Your task to perform on an android device: Open calendar and show me the third week of next month Image 0: 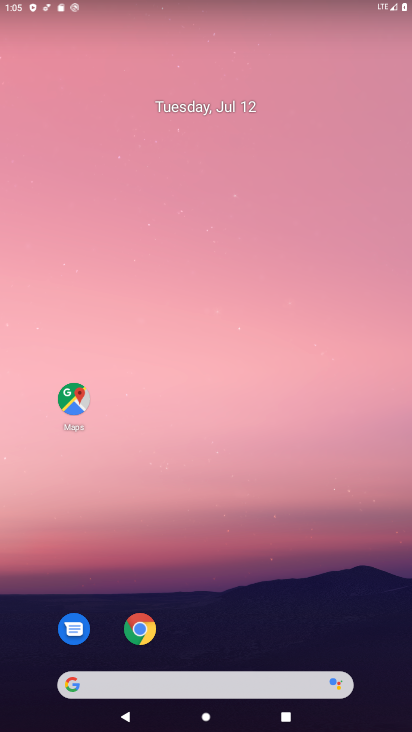
Step 0: drag from (334, 691) to (309, 4)
Your task to perform on an android device: Open calendar and show me the third week of next month Image 1: 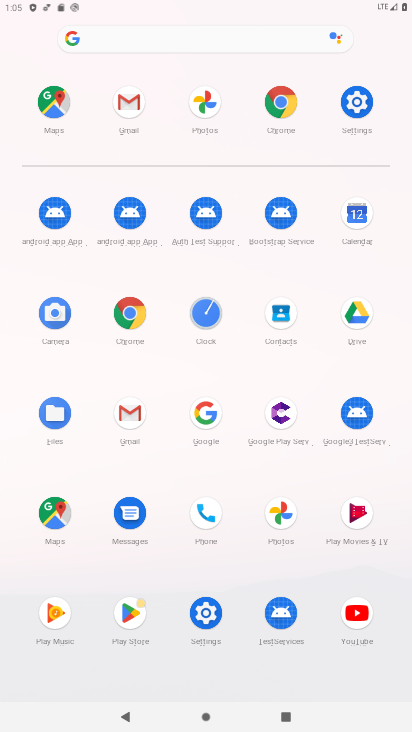
Step 1: click (353, 223)
Your task to perform on an android device: Open calendar and show me the third week of next month Image 2: 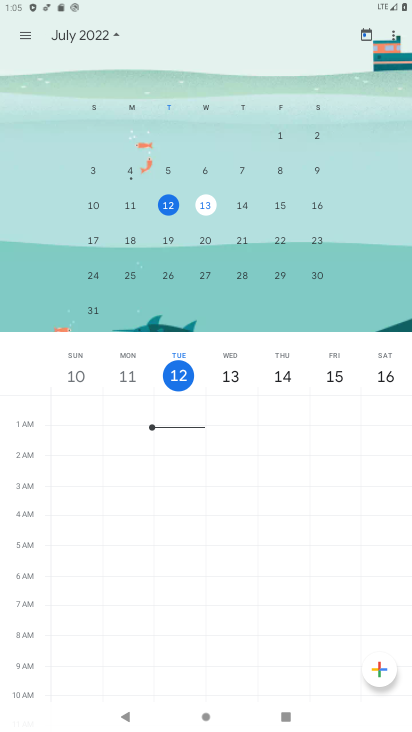
Step 2: drag from (306, 159) to (25, 261)
Your task to perform on an android device: Open calendar and show me the third week of next month Image 3: 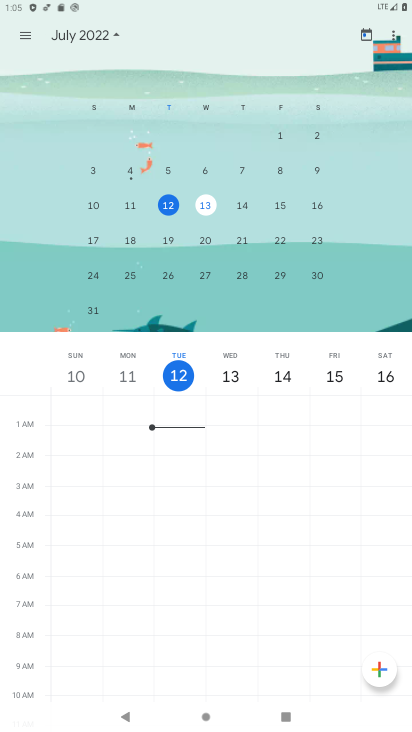
Step 3: drag from (246, 229) to (175, 186)
Your task to perform on an android device: Open calendar and show me the third week of next month Image 4: 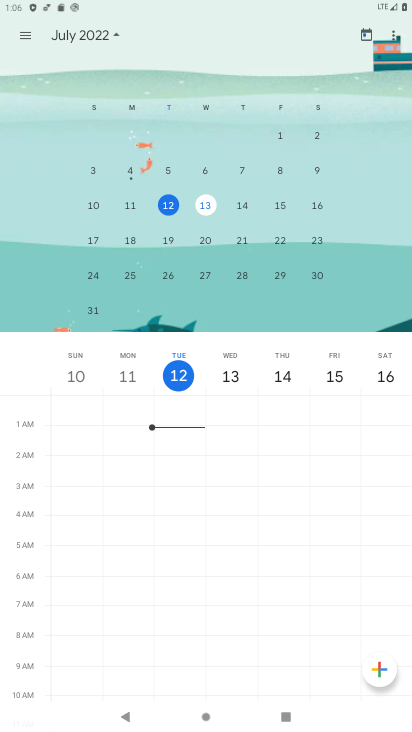
Step 4: drag from (345, 183) to (410, 140)
Your task to perform on an android device: Open calendar and show me the third week of next month Image 5: 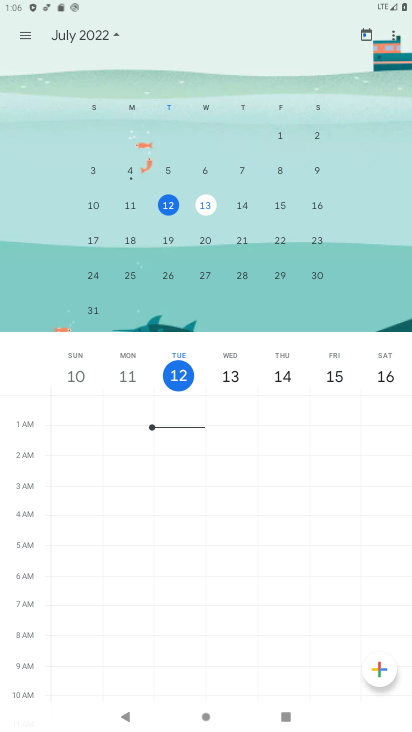
Step 5: drag from (367, 162) to (3, 189)
Your task to perform on an android device: Open calendar and show me the third week of next month Image 6: 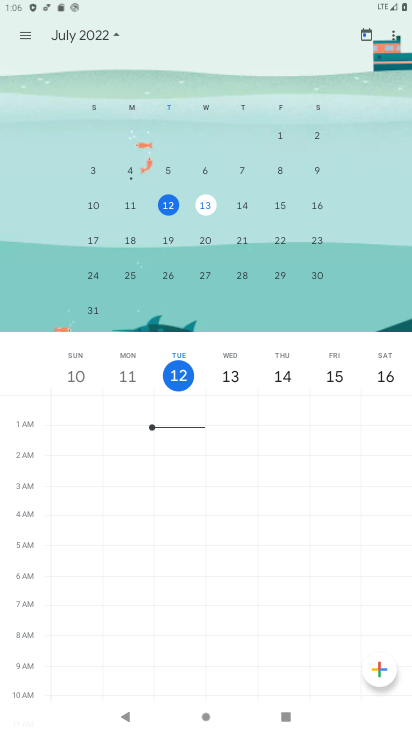
Step 6: drag from (338, 127) to (70, 131)
Your task to perform on an android device: Open calendar and show me the third week of next month Image 7: 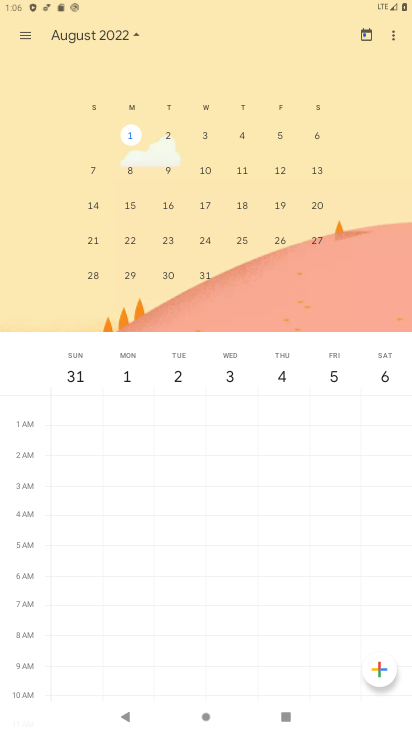
Step 7: click (207, 207)
Your task to perform on an android device: Open calendar and show me the third week of next month Image 8: 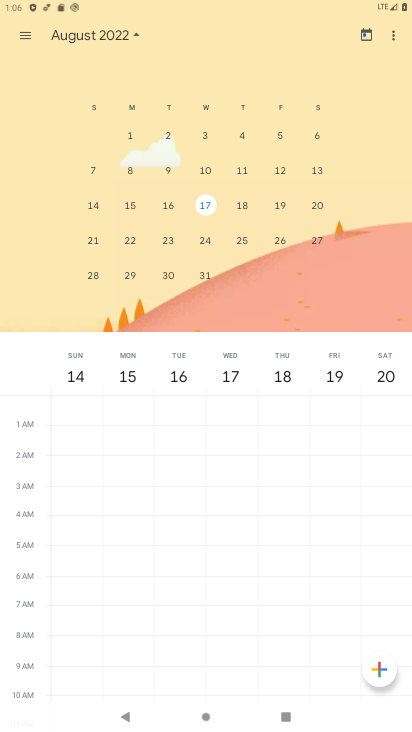
Step 8: task complete